Your task to perform on an android device: star an email in the gmail app Image 0: 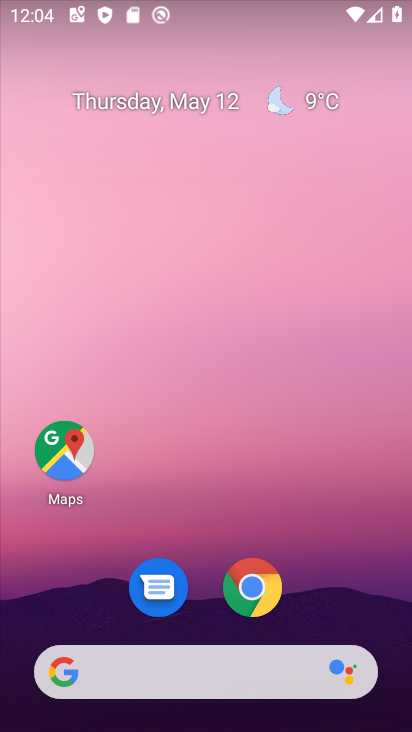
Step 0: drag from (320, 559) to (268, 178)
Your task to perform on an android device: star an email in the gmail app Image 1: 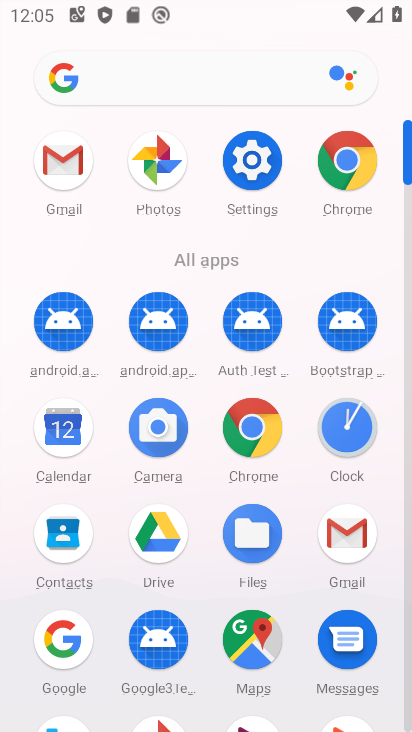
Step 1: click (64, 176)
Your task to perform on an android device: star an email in the gmail app Image 2: 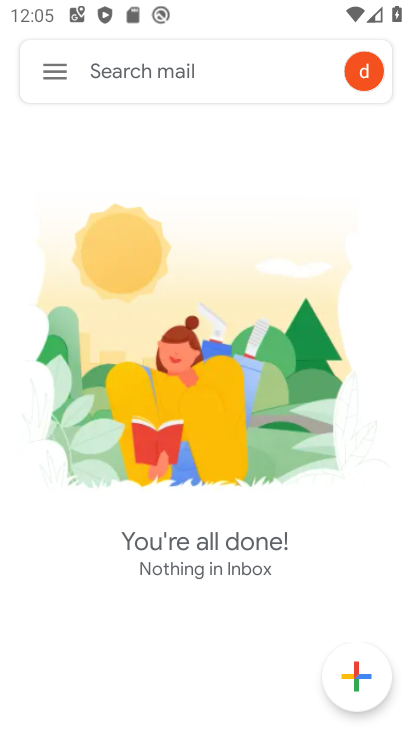
Step 2: click (46, 61)
Your task to perform on an android device: star an email in the gmail app Image 3: 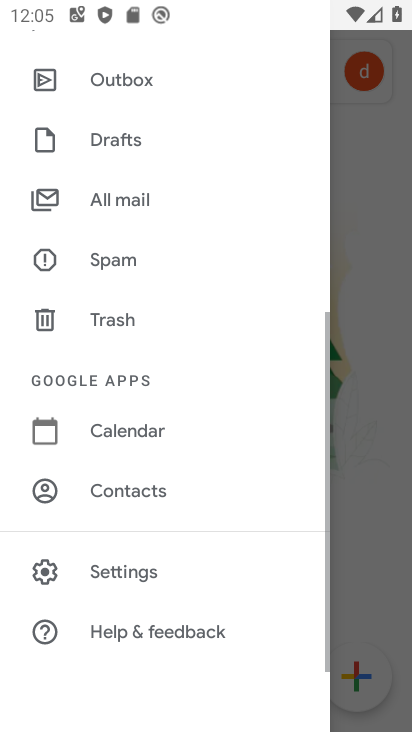
Step 3: drag from (133, 179) to (143, 556)
Your task to perform on an android device: star an email in the gmail app Image 4: 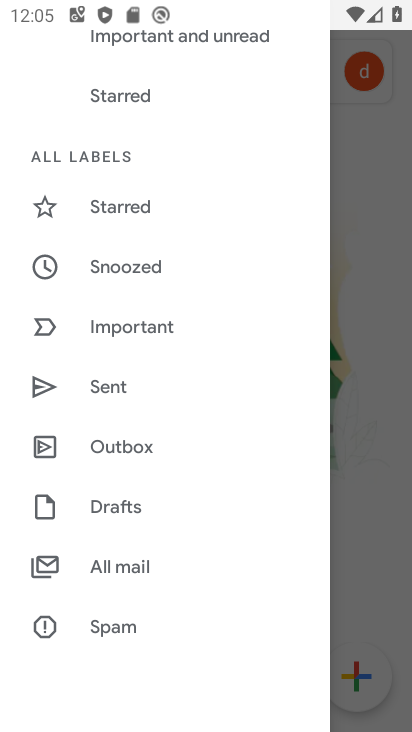
Step 4: click (141, 199)
Your task to perform on an android device: star an email in the gmail app Image 5: 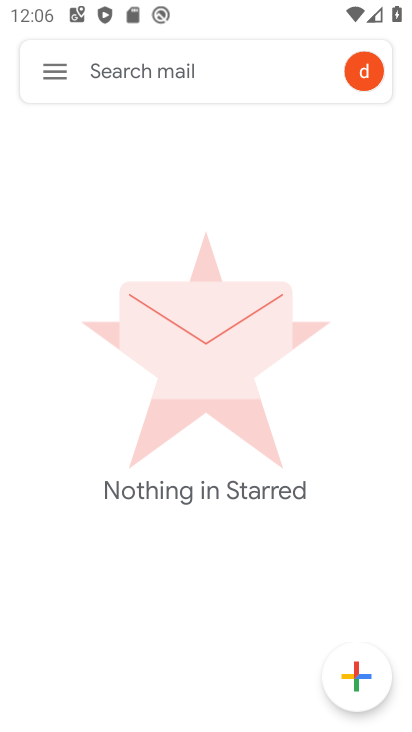
Step 5: task complete